Your task to perform on an android device: Show me productivity apps on the Play Store Image 0: 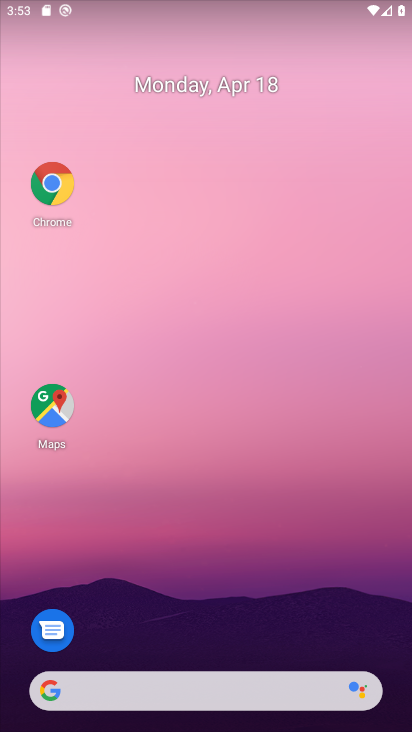
Step 0: drag from (220, 506) to (240, 14)
Your task to perform on an android device: Show me productivity apps on the Play Store Image 1: 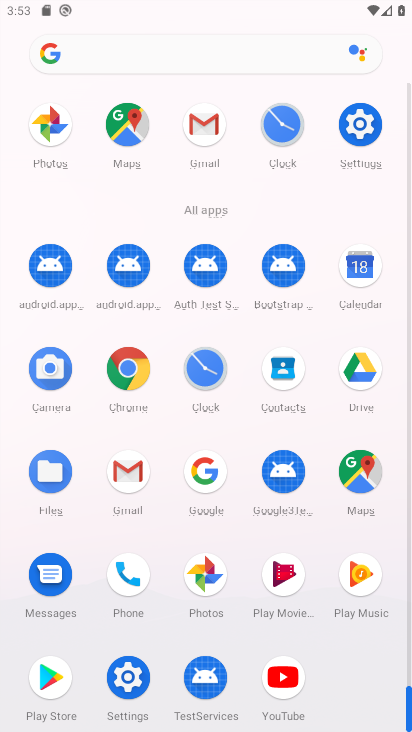
Step 1: click (43, 676)
Your task to perform on an android device: Show me productivity apps on the Play Store Image 2: 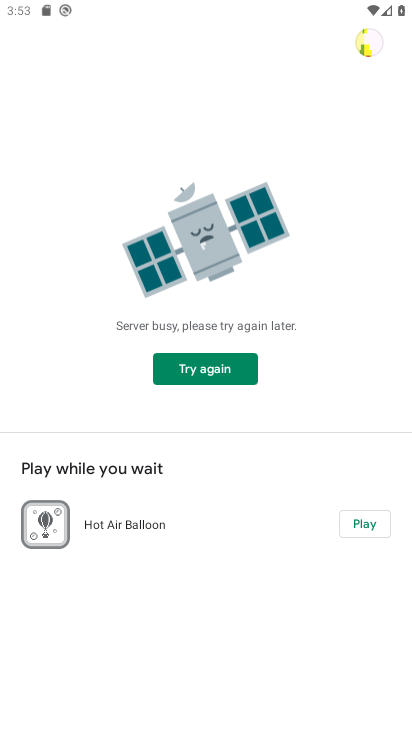
Step 2: task complete